Your task to perform on an android device: turn off airplane mode Image 0: 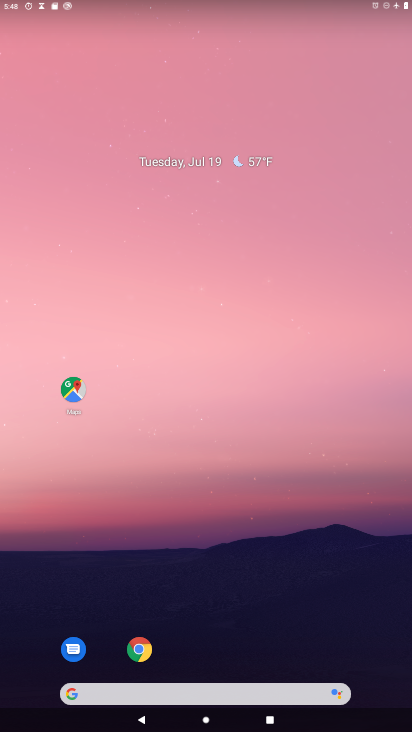
Step 0: drag from (179, 539) to (149, 98)
Your task to perform on an android device: turn off airplane mode Image 1: 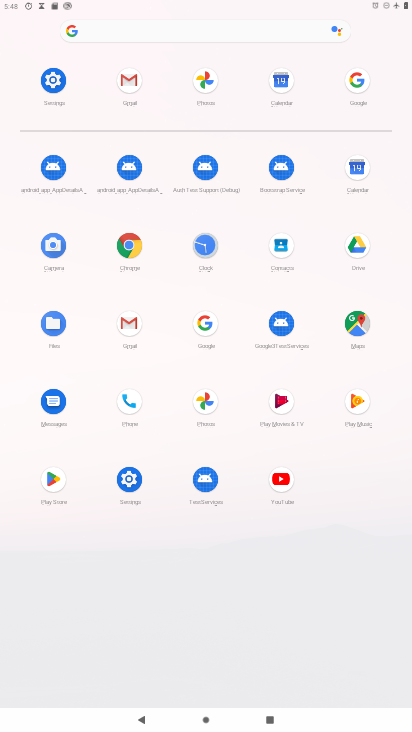
Step 1: click (49, 80)
Your task to perform on an android device: turn off airplane mode Image 2: 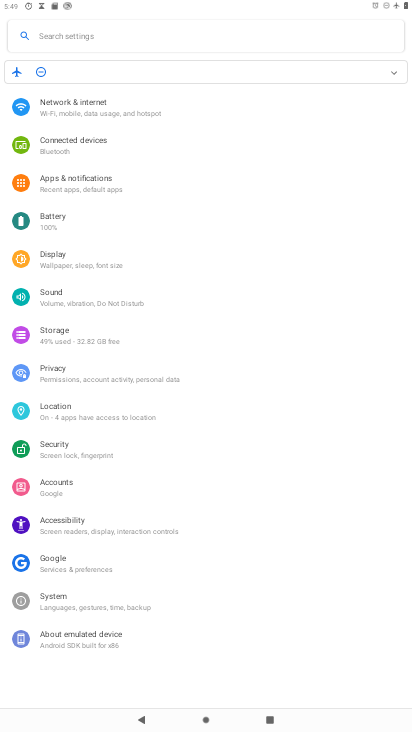
Step 2: click (391, 69)
Your task to perform on an android device: turn off airplane mode Image 3: 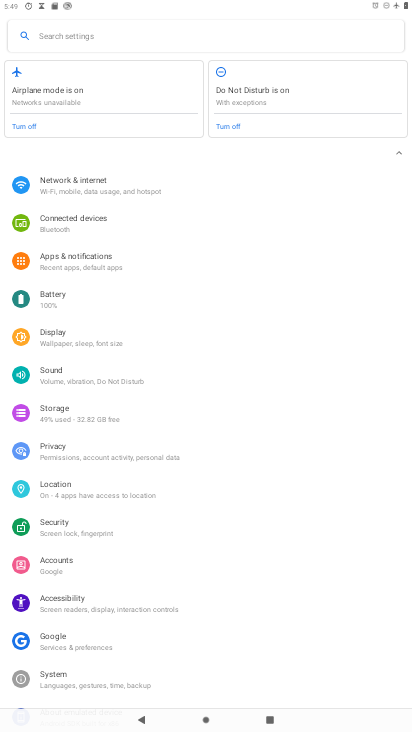
Step 3: click (23, 124)
Your task to perform on an android device: turn off airplane mode Image 4: 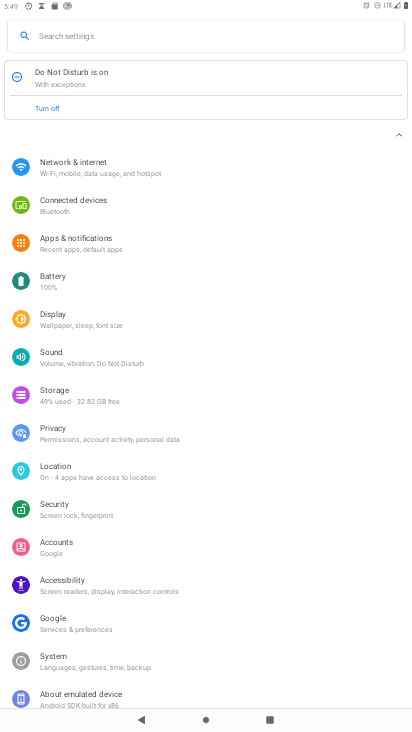
Step 4: task complete